Your task to perform on an android device: toggle sleep mode Image 0: 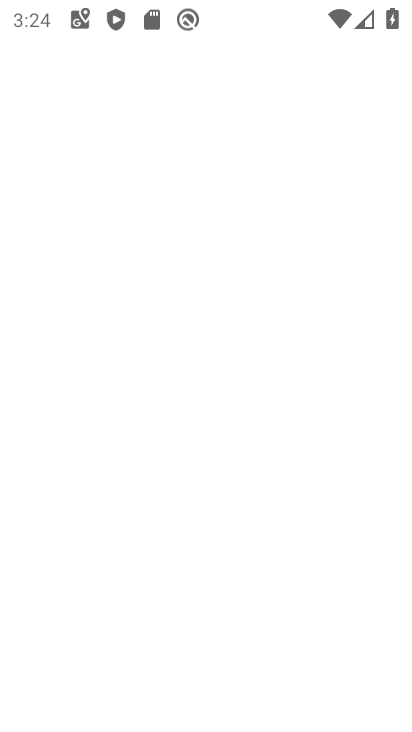
Step 0: press home button
Your task to perform on an android device: toggle sleep mode Image 1: 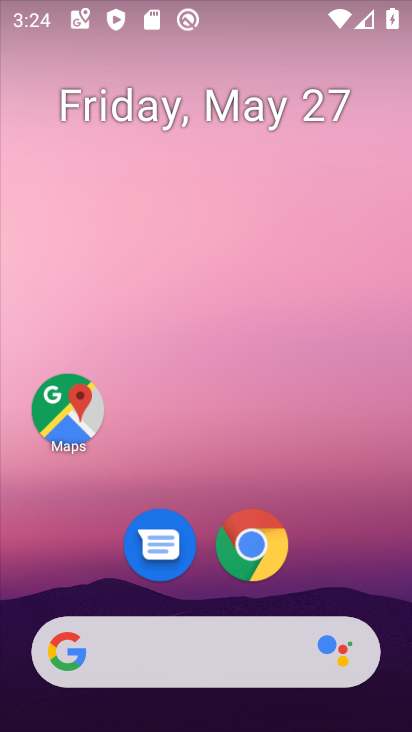
Step 1: drag from (251, 649) to (257, 187)
Your task to perform on an android device: toggle sleep mode Image 2: 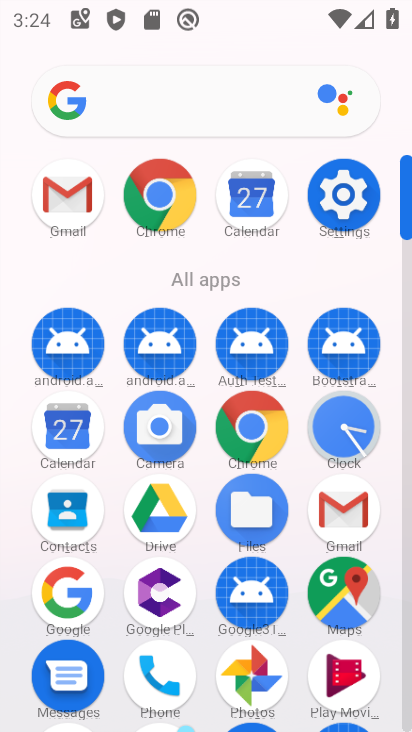
Step 2: click (347, 202)
Your task to perform on an android device: toggle sleep mode Image 3: 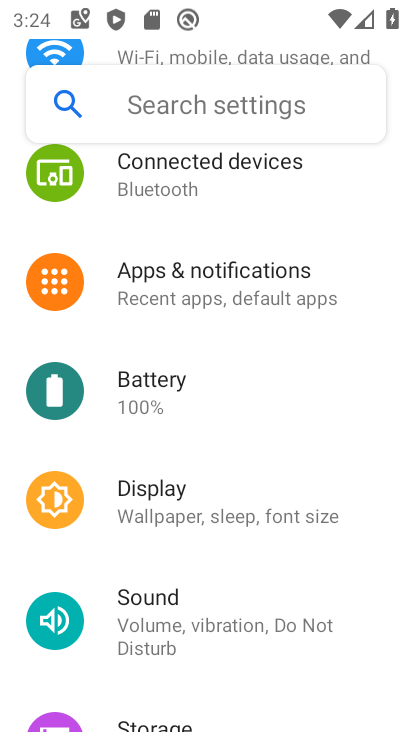
Step 3: click (231, 524)
Your task to perform on an android device: toggle sleep mode Image 4: 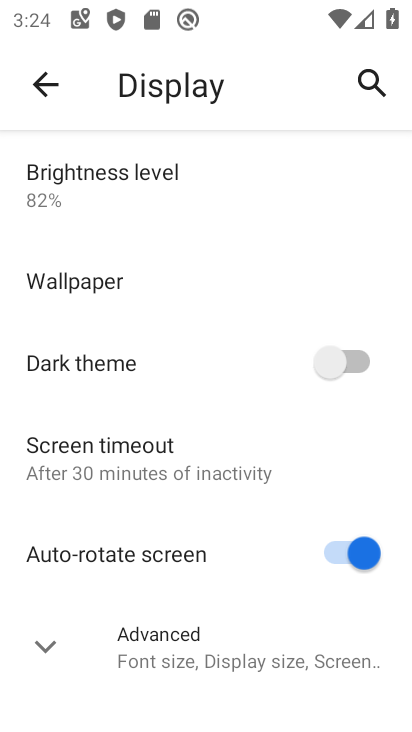
Step 4: task complete